Your task to perform on an android device: change timer sound Image 0: 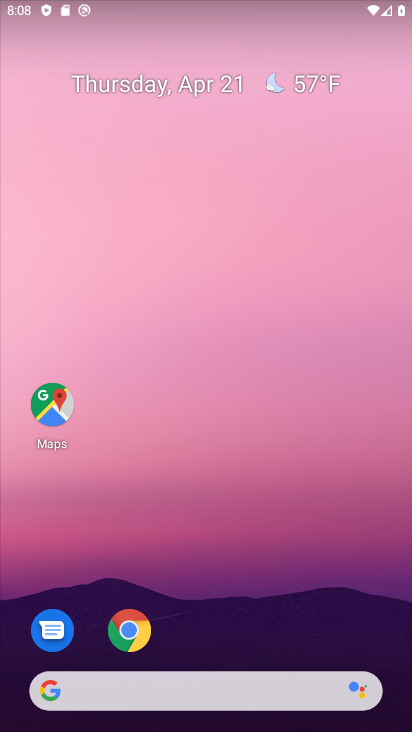
Step 0: drag from (328, 624) to (257, 64)
Your task to perform on an android device: change timer sound Image 1: 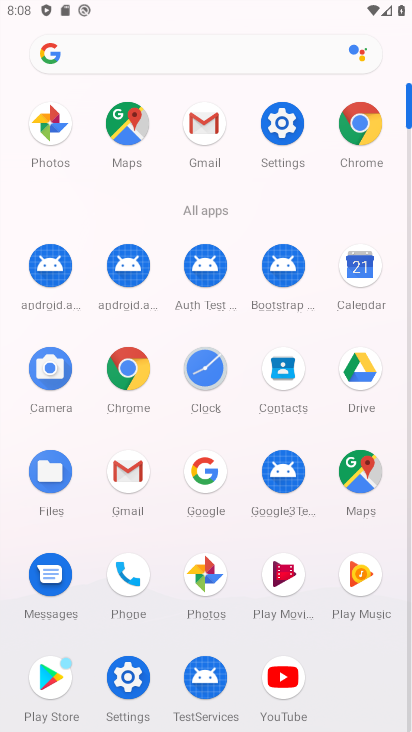
Step 1: click (202, 375)
Your task to perform on an android device: change timer sound Image 2: 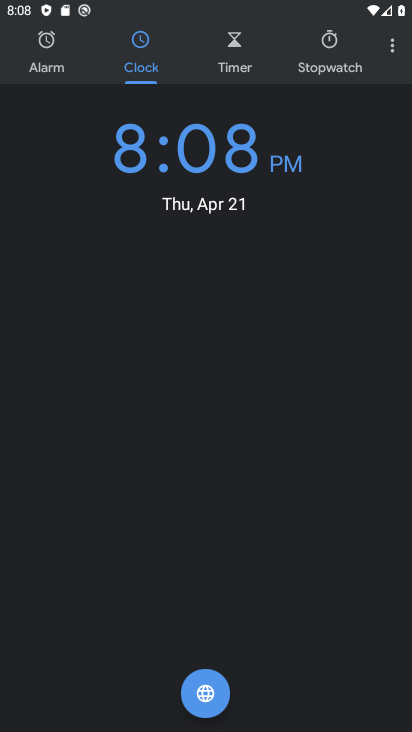
Step 2: click (393, 46)
Your task to perform on an android device: change timer sound Image 3: 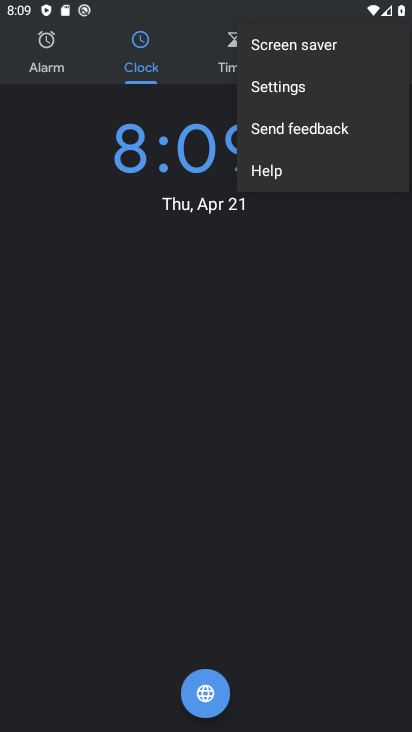
Step 3: click (346, 87)
Your task to perform on an android device: change timer sound Image 4: 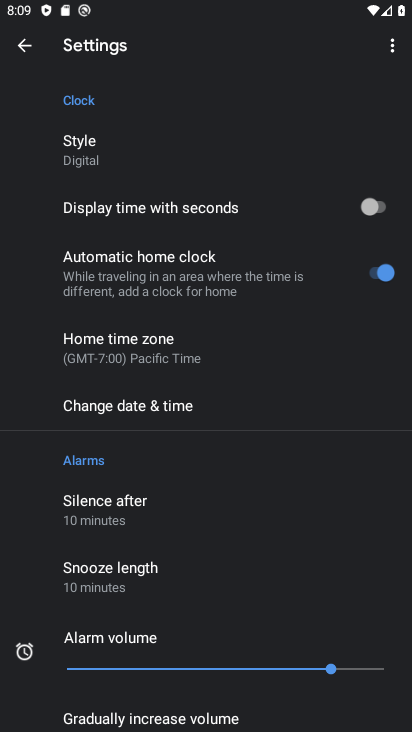
Step 4: drag from (223, 585) to (244, 295)
Your task to perform on an android device: change timer sound Image 5: 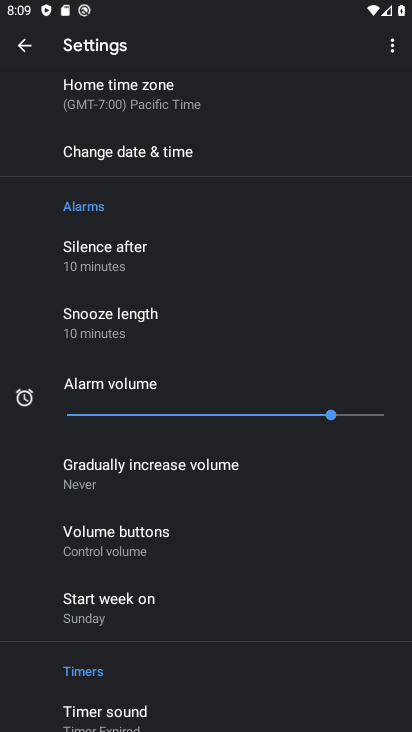
Step 5: drag from (212, 627) to (211, 534)
Your task to perform on an android device: change timer sound Image 6: 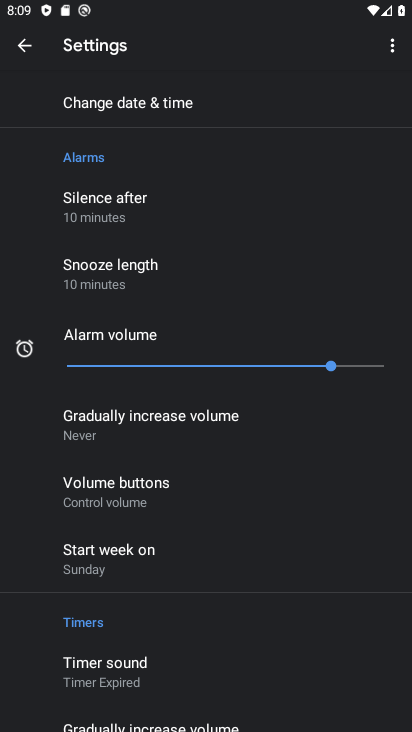
Step 6: click (154, 680)
Your task to perform on an android device: change timer sound Image 7: 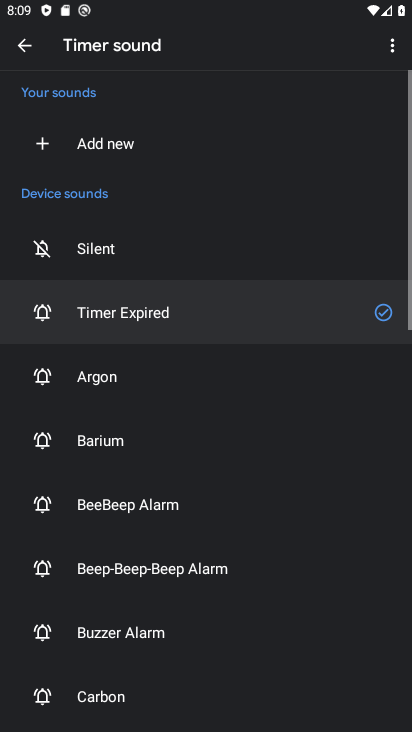
Step 7: click (233, 441)
Your task to perform on an android device: change timer sound Image 8: 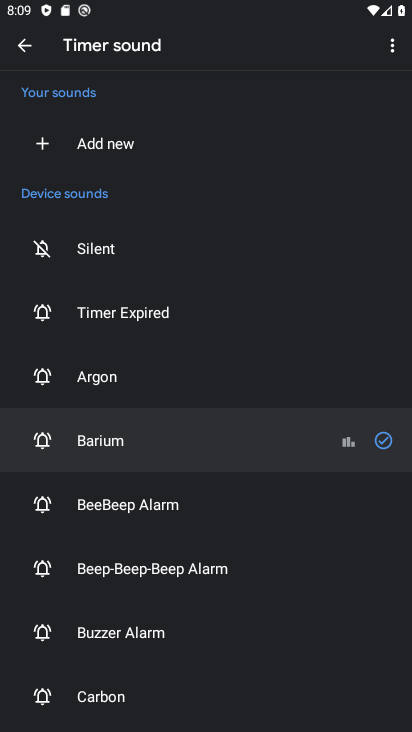
Step 8: task complete